Your task to perform on an android device: add a contact Image 0: 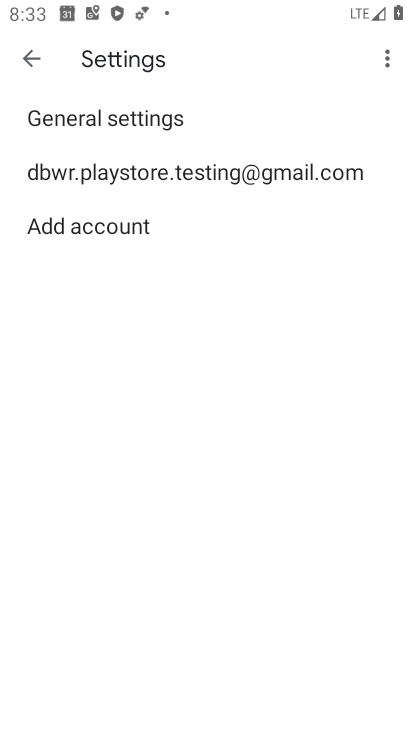
Step 0: press home button
Your task to perform on an android device: add a contact Image 1: 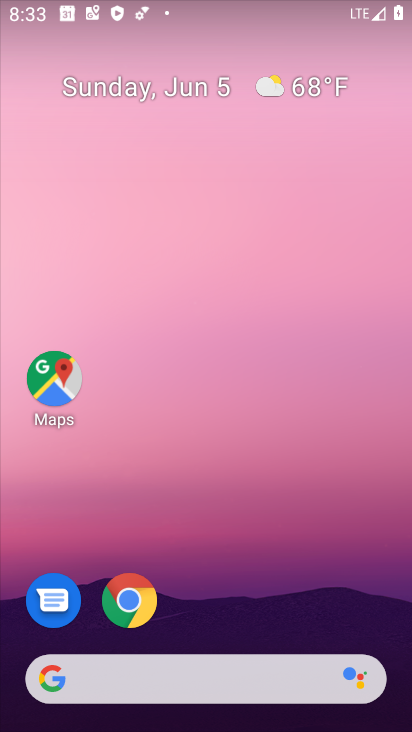
Step 1: drag from (244, 589) to (263, 3)
Your task to perform on an android device: add a contact Image 2: 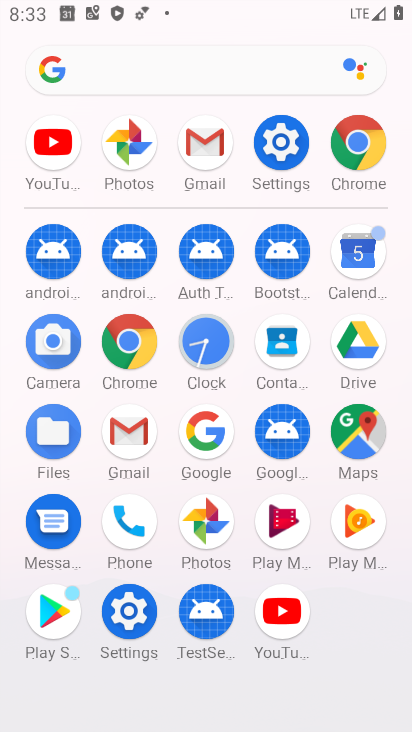
Step 2: click (286, 341)
Your task to perform on an android device: add a contact Image 3: 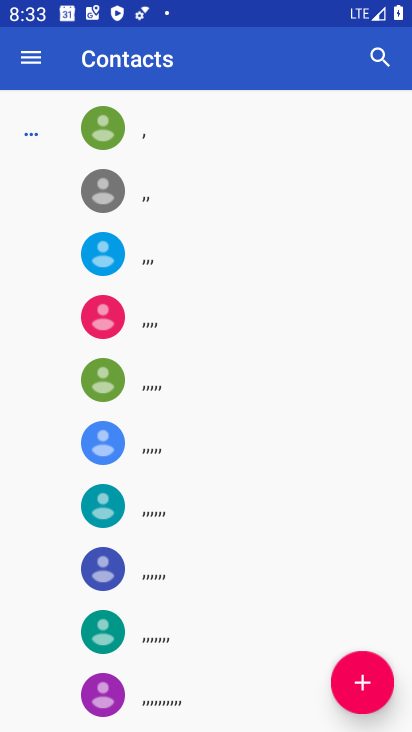
Step 3: click (359, 671)
Your task to perform on an android device: add a contact Image 4: 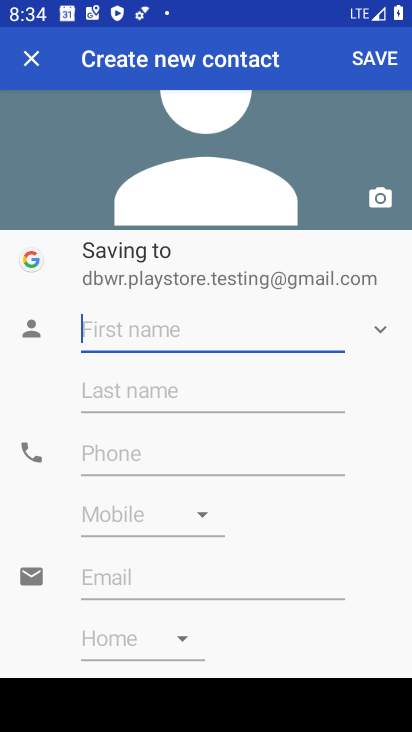
Step 4: type "Brijesh"
Your task to perform on an android device: add a contact Image 5: 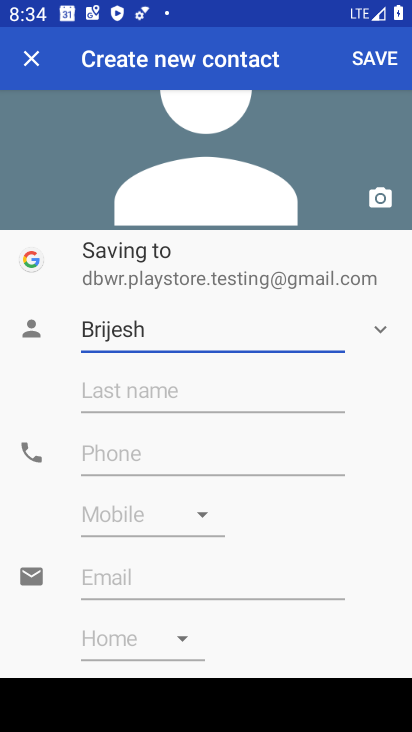
Step 5: click (240, 463)
Your task to perform on an android device: add a contact Image 6: 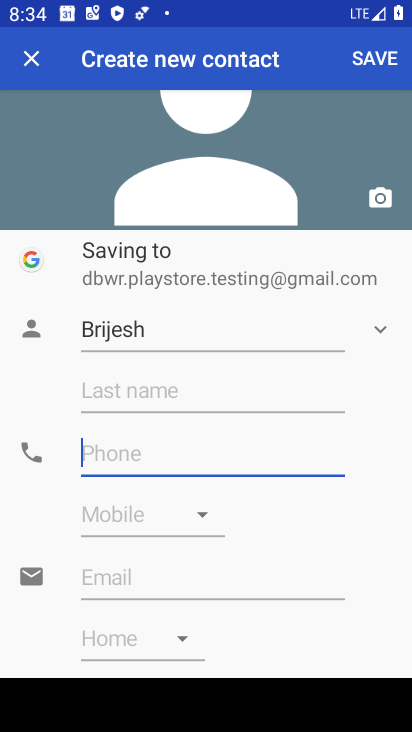
Step 6: type "04422335577"
Your task to perform on an android device: add a contact Image 7: 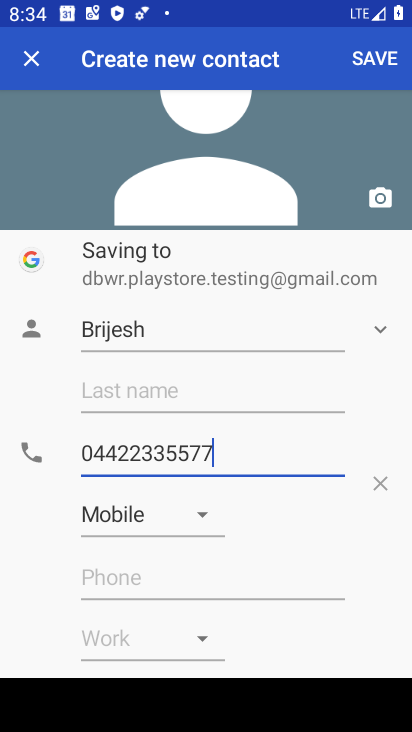
Step 7: click (382, 56)
Your task to perform on an android device: add a contact Image 8: 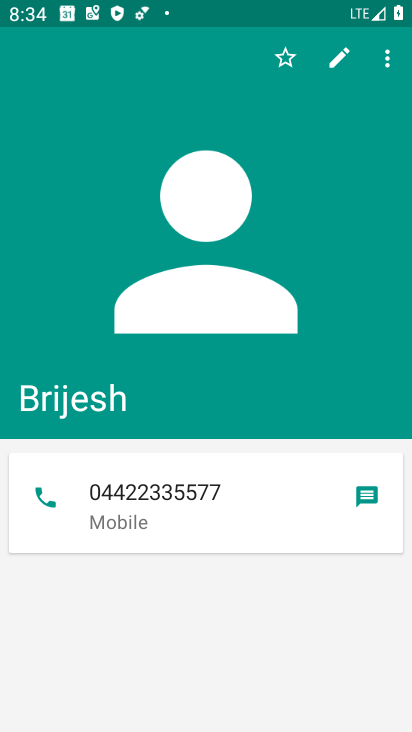
Step 8: task complete